Your task to perform on an android device: Open calendar and show me the third week of next month Image 0: 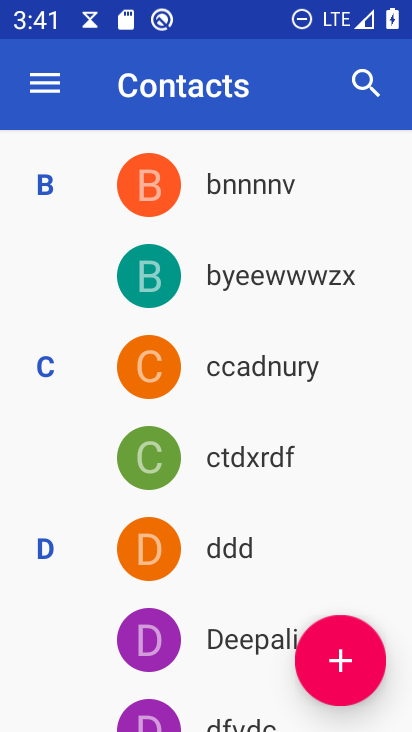
Step 0: press home button
Your task to perform on an android device: Open calendar and show me the third week of next month Image 1: 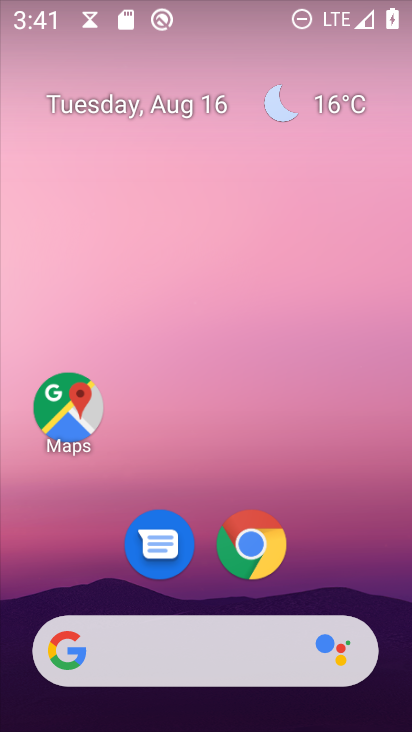
Step 1: drag from (189, 668) to (187, 170)
Your task to perform on an android device: Open calendar and show me the third week of next month Image 2: 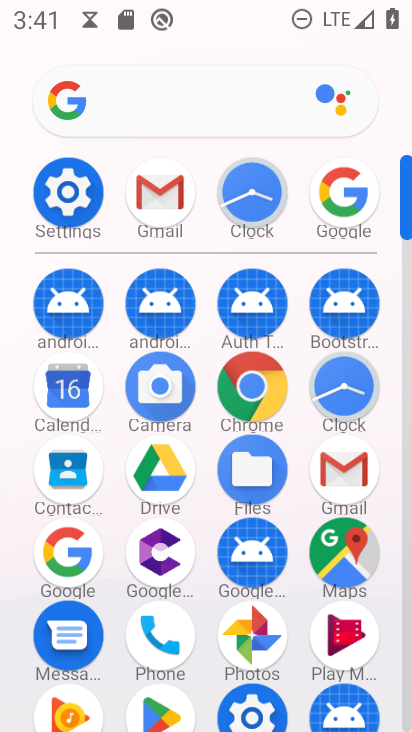
Step 2: click (66, 391)
Your task to perform on an android device: Open calendar and show me the third week of next month Image 3: 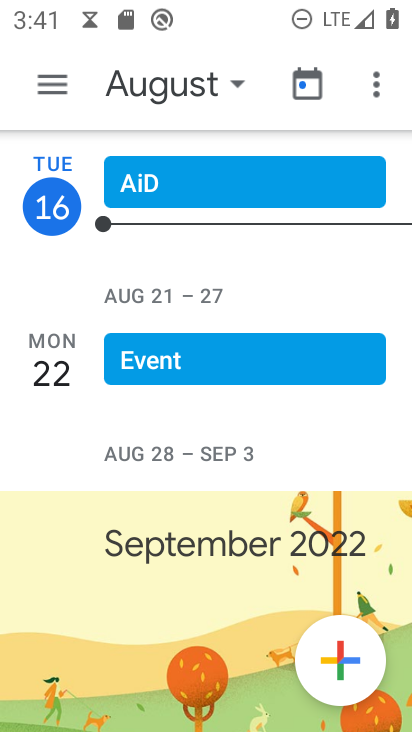
Step 3: click (310, 87)
Your task to perform on an android device: Open calendar and show me the third week of next month Image 4: 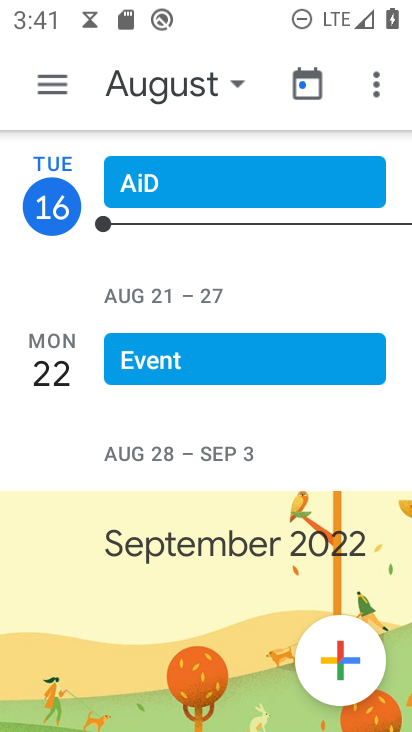
Step 4: click (239, 84)
Your task to perform on an android device: Open calendar and show me the third week of next month Image 5: 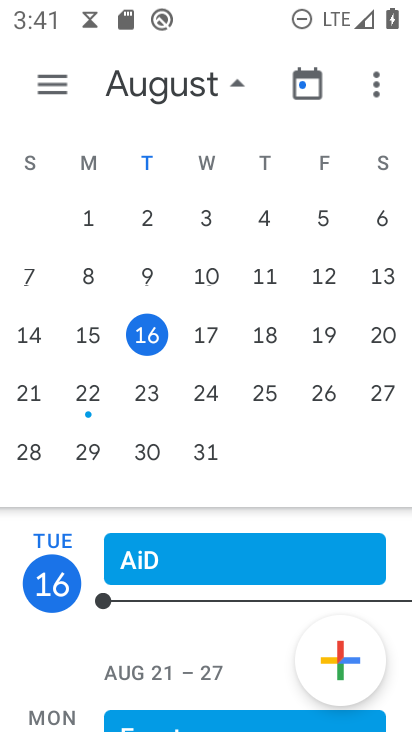
Step 5: drag from (374, 365) to (0, 292)
Your task to perform on an android device: Open calendar and show me the third week of next month Image 6: 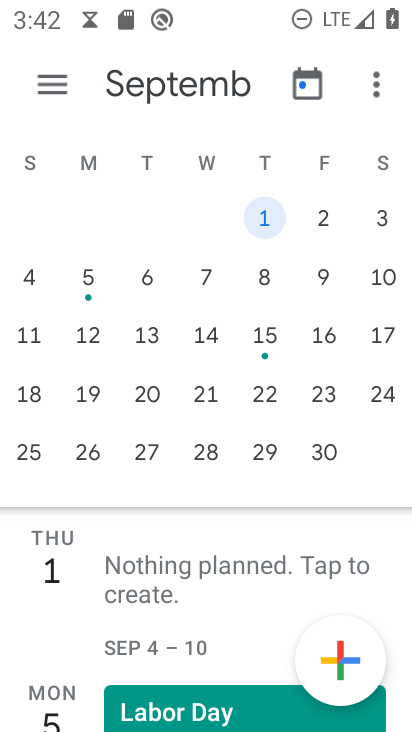
Step 6: click (87, 394)
Your task to perform on an android device: Open calendar and show me the third week of next month Image 7: 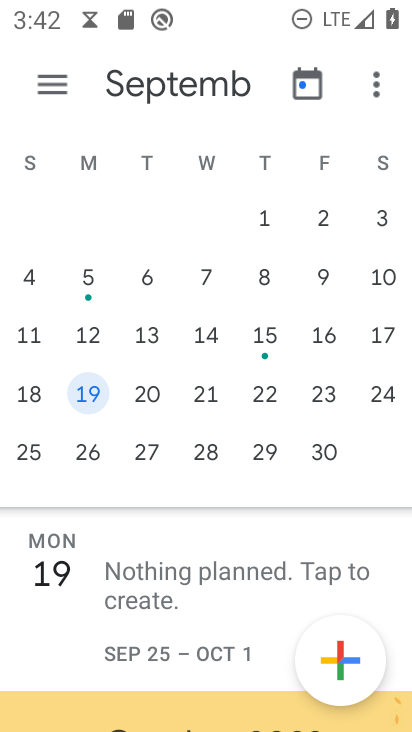
Step 7: click (57, 83)
Your task to perform on an android device: Open calendar and show me the third week of next month Image 8: 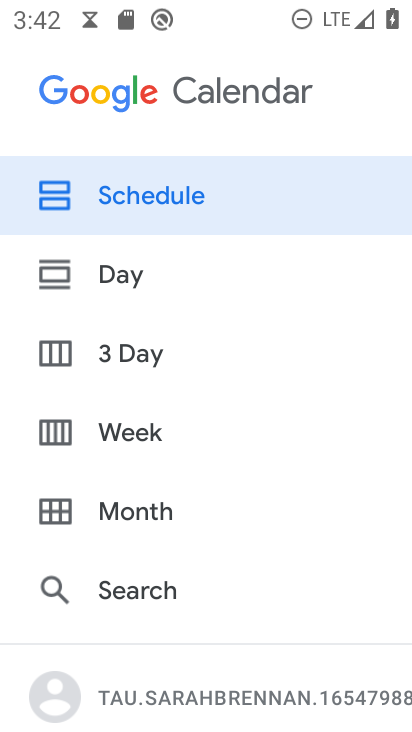
Step 8: click (128, 436)
Your task to perform on an android device: Open calendar and show me the third week of next month Image 9: 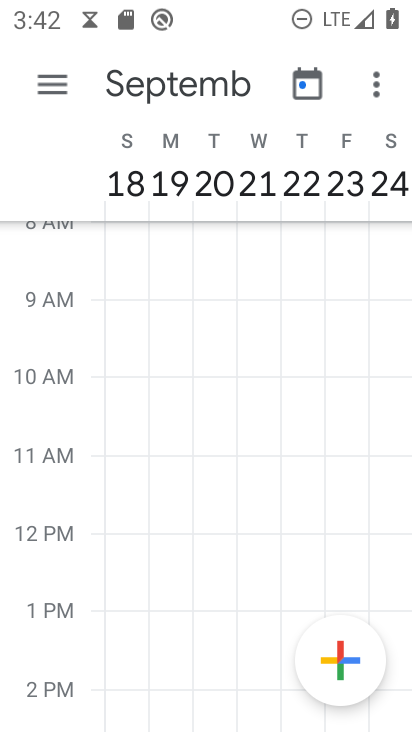
Step 9: task complete